Your task to perform on an android device: turn off sleep mode Image 0: 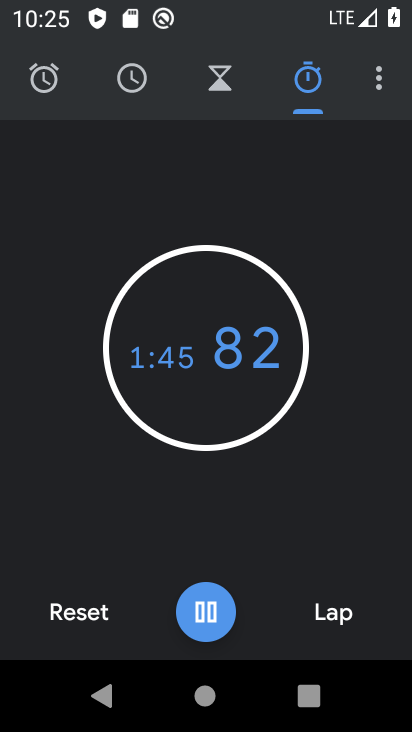
Step 0: press home button
Your task to perform on an android device: turn off sleep mode Image 1: 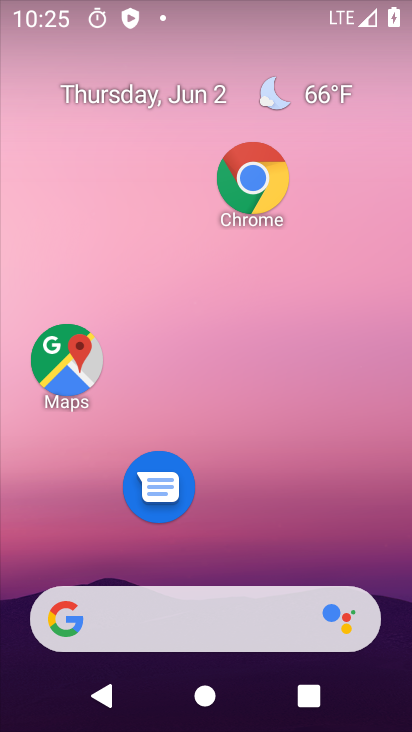
Step 1: drag from (238, 729) to (183, 78)
Your task to perform on an android device: turn off sleep mode Image 2: 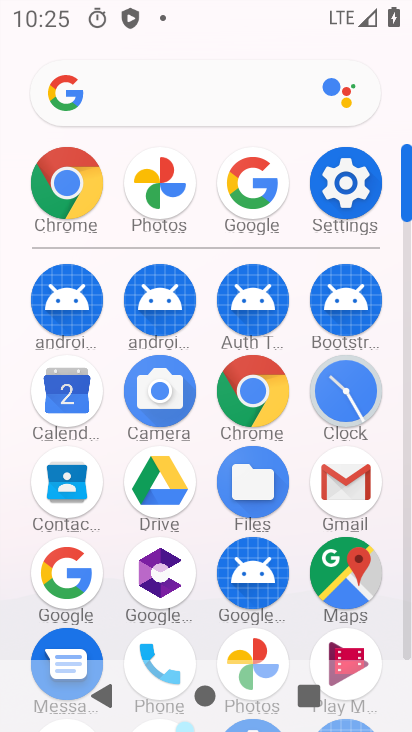
Step 2: click (343, 195)
Your task to perform on an android device: turn off sleep mode Image 3: 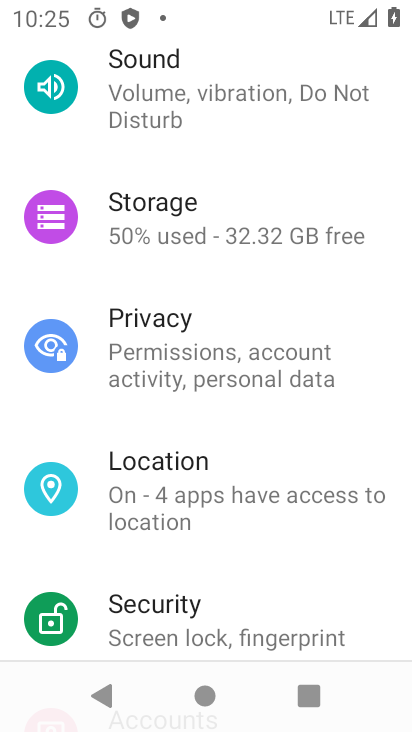
Step 3: task complete